Your task to perform on an android device: Open Google Chrome and click the shortcut for Amazon.com Image 0: 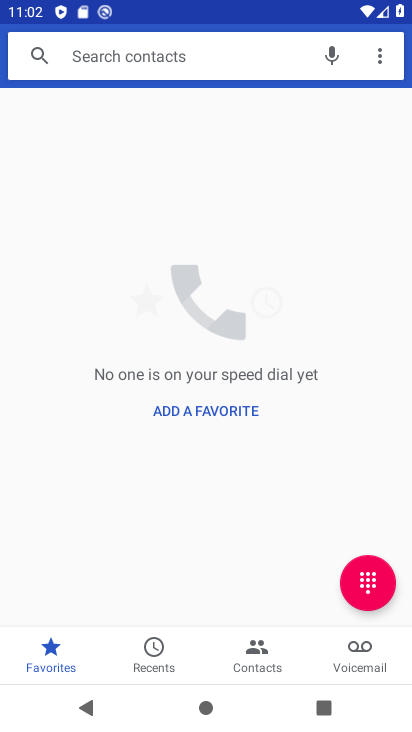
Step 0: press home button
Your task to perform on an android device: Open Google Chrome and click the shortcut for Amazon.com Image 1: 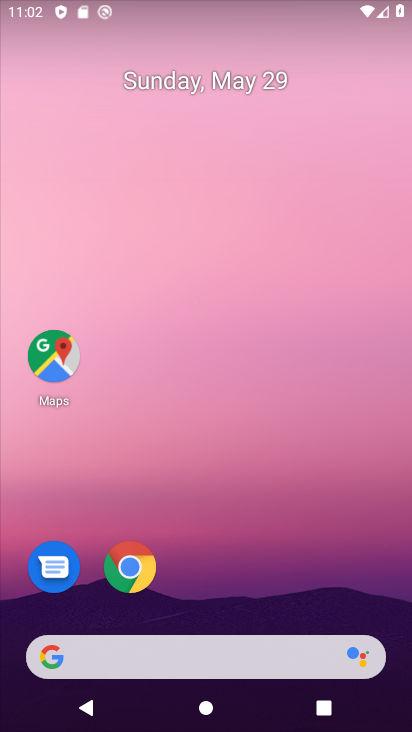
Step 1: click (158, 563)
Your task to perform on an android device: Open Google Chrome and click the shortcut for Amazon.com Image 2: 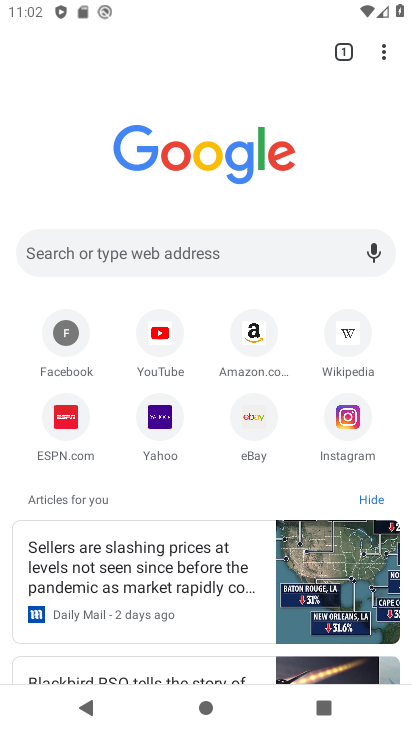
Step 2: click (254, 322)
Your task to perform on an android device: Open Google Chrome and click the shortcut for Amazon.com Image 3: 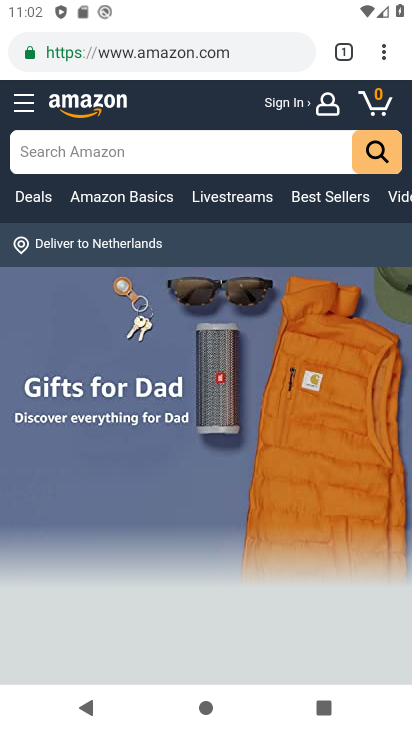
Step 3: task complete